Your task to perform on an android device: Open Google Maps and go to "Timeline" Image 0: 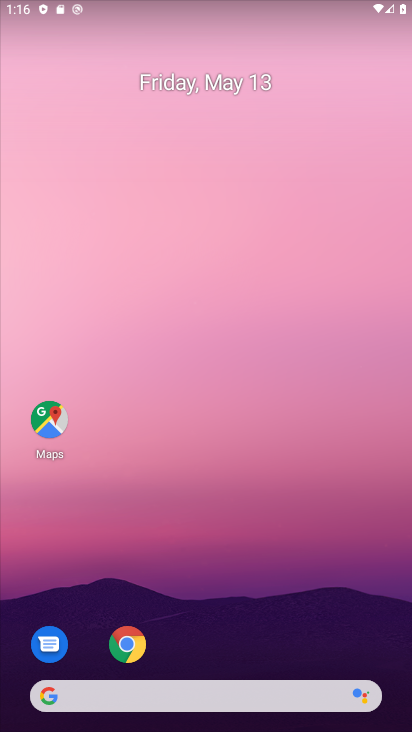
Step 0: click (49, 410)
Your task to perform on an android device: Open Google Maps and go to "Timeline" Image 1: 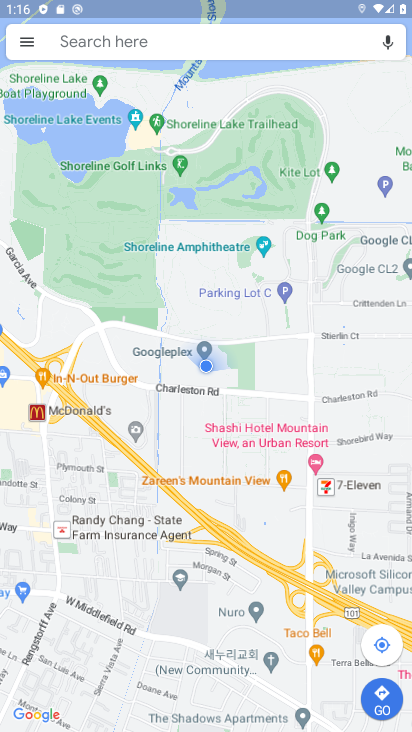
Step 1: click (29, 33)
Your task to perform on an android device: Open Google Maps and go to "Timeline" Image 2: 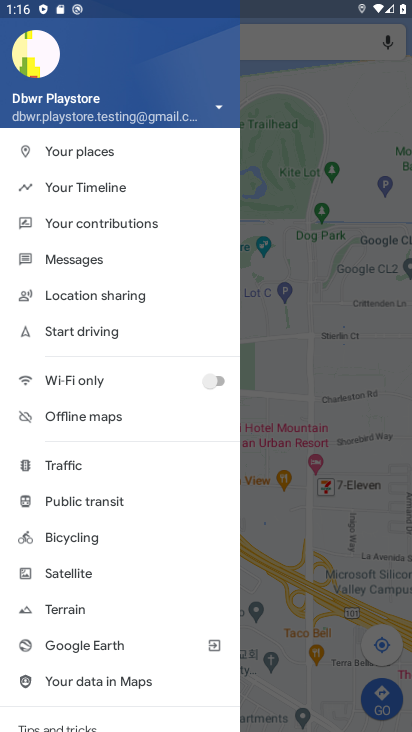
Step 2: click (89, 189)
Your task to perform on an android device: Open Google Maps and go to "Timeline" Image 3: 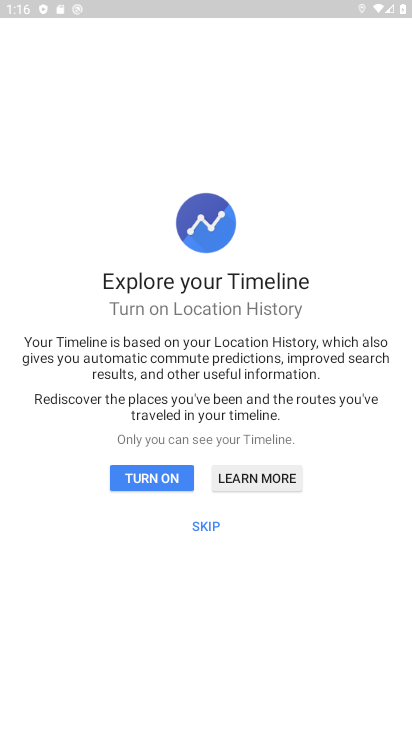
Step 3: click (162, 474)
Your task to perform on an android device: Open Google Maps and go to "Timeline" Image 4: 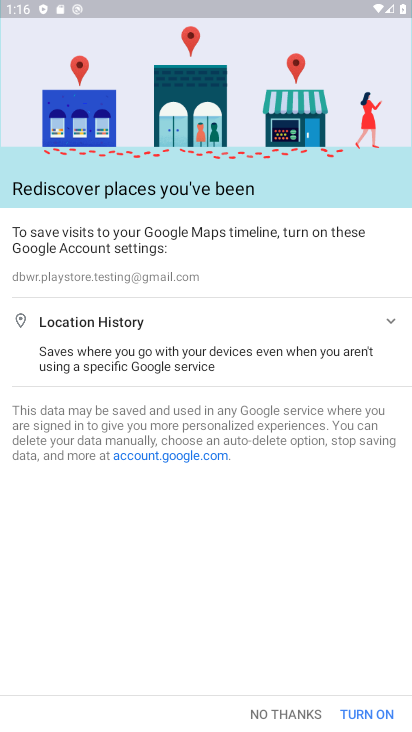
Step 4: click (281, 720)
Your task to perform on an android device: Open Google Maps and go to "Timeline" Image 5: 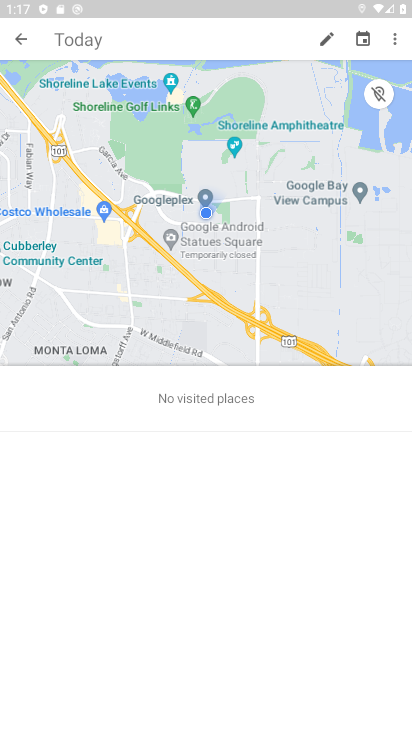
Step 5: task complete